Your task to perform on an android device: open device folders in google photos Image 0: 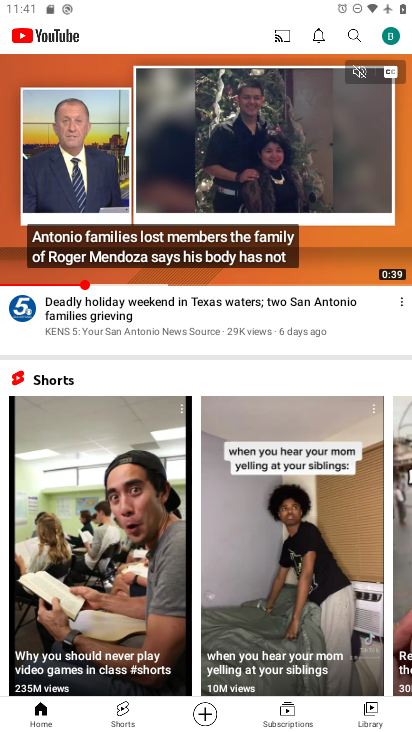
Step 0: press back button
Your task to perform on an android device: open device folders in google photos Image 1: 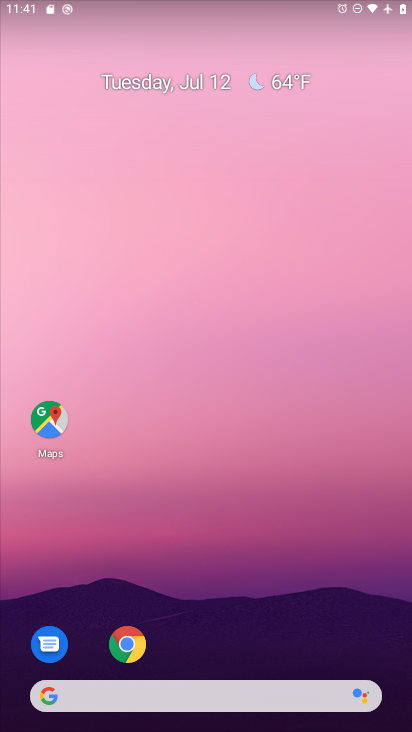
Step 1: drag from (257, 631) to (314, 49)
Your task to perform on an android device: open device folders in google photos Image 2: 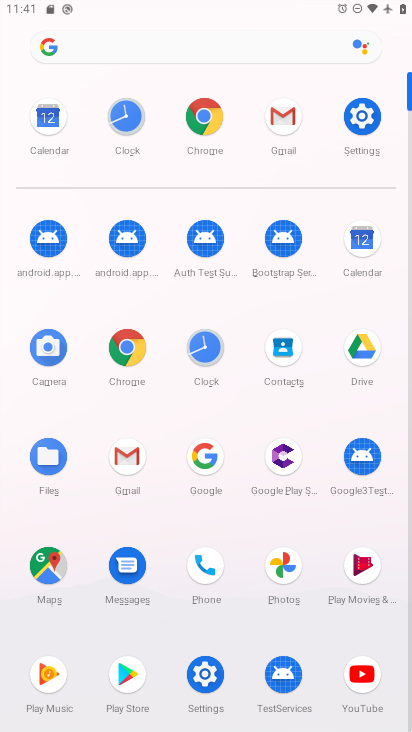
Step 2: click (284, 560)
Your task to perform on an android device: open device folders in google photos Image 3: 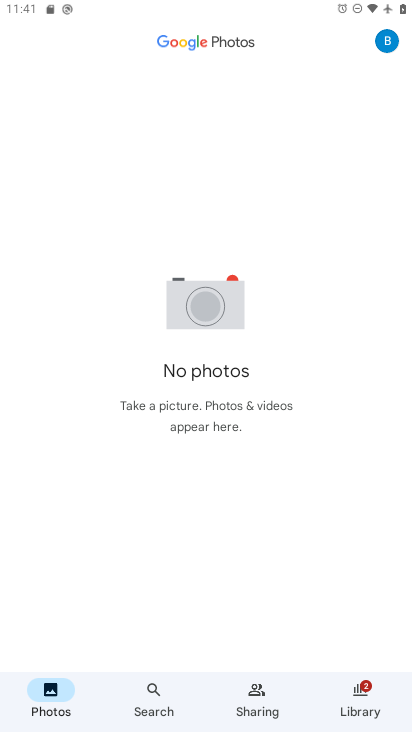
Step 3: click (387, 50)
Your task to perform on an android device: open device folders in google photos Image 4: 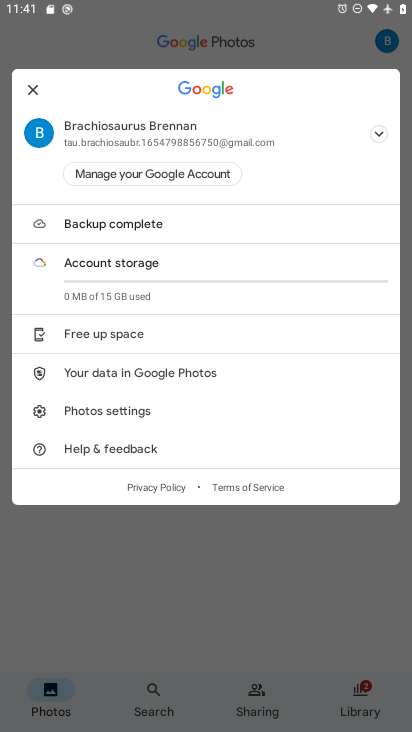
Step 4: click (153, 404)
Your task to perform on an android device: open device folders in google photos Image 5: 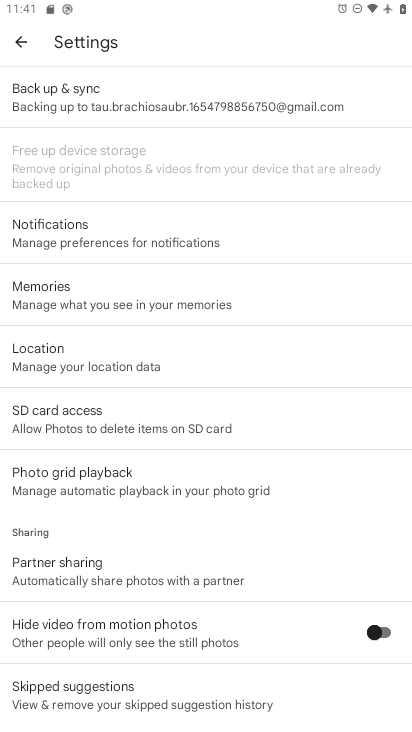
Step 5: task complete